Your task to perform on an android device: turn off javascript in the chrome app Image 0: 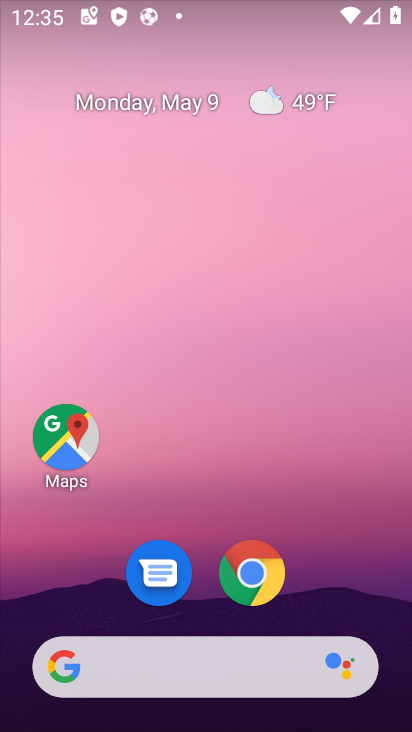
Step 0: click (253, 575)
Your task to perform on an android device: turn off javascript in the chrome app Image 1: 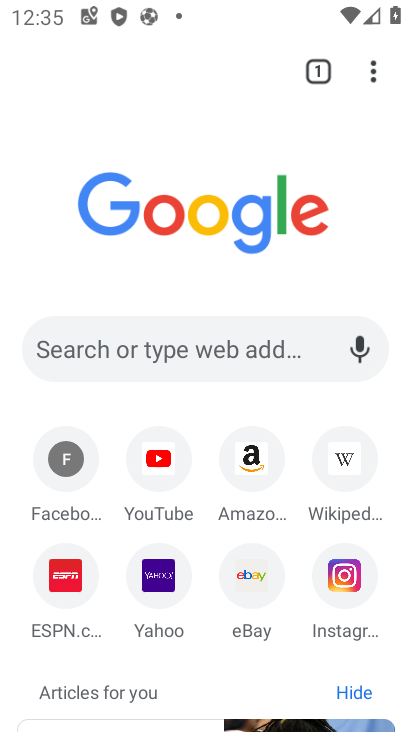
Step 1: click (377, 78)
Your task to perform on an android device: turn off javascript in the chrome app Image 2: 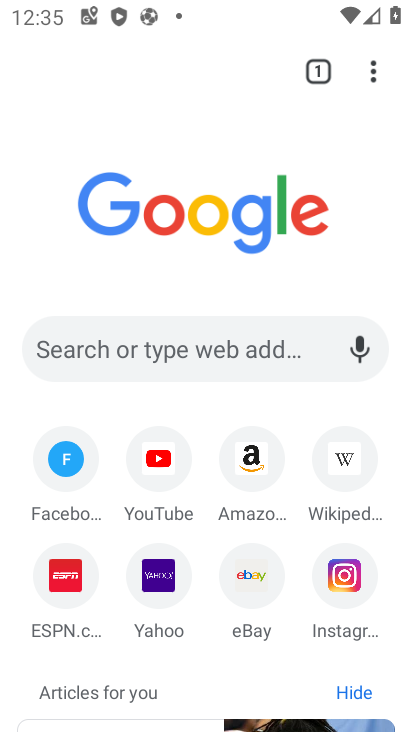
Step 2: click (368, 60)
Your task to perform on an android device: turn off javascript in the chrome app Image 3: 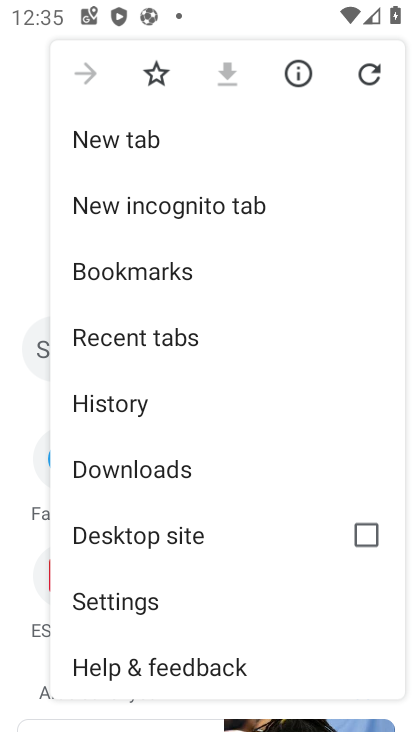
Step 3: click (366, 58)
Your task to perform on an android device: turn off javascript in the chrome app Image 4: 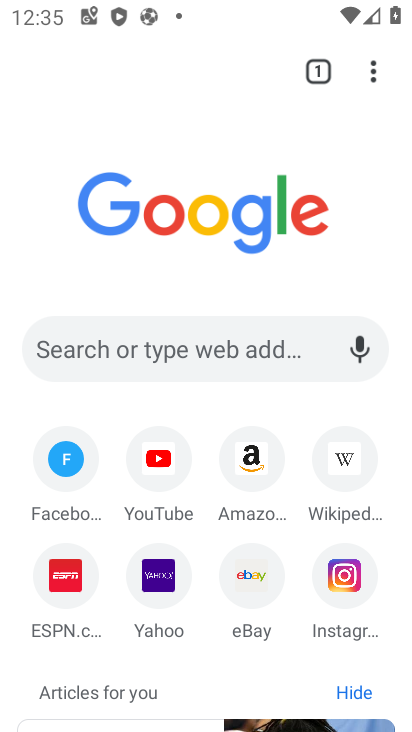
Step 4: click (371, 68)
Your task to perform on an android device: turn off javascript in the chrome app Image 5: 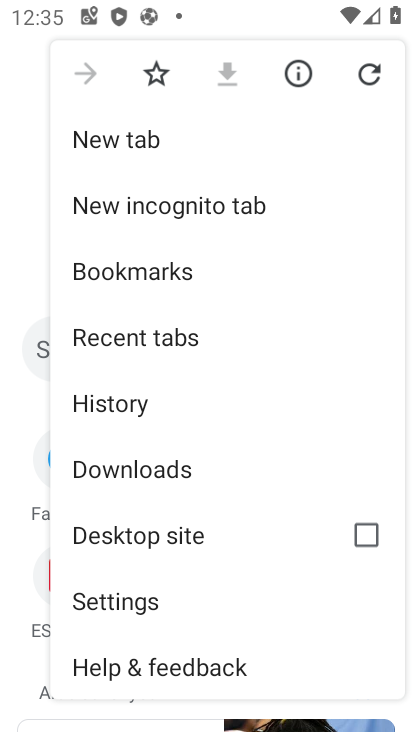
Step 5: click (157, 608)
Your task to perform on an android device: turn off javascript in the chrome app Image 6: 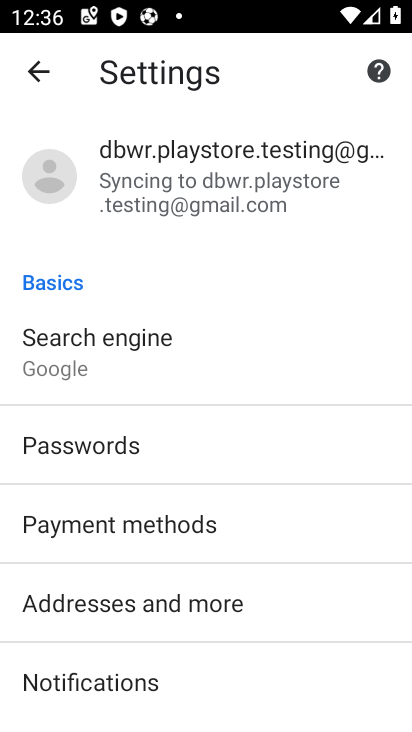
Step 6: drag from (206, 642) to (77, 56)
Your task to perform on an android device: turn off javascript in the chrome app Image 7: 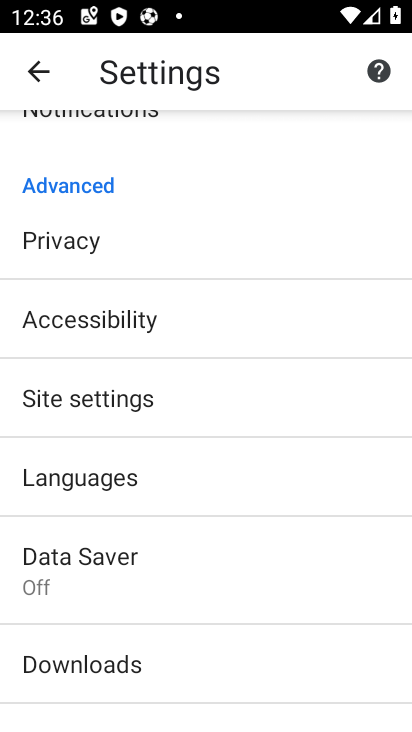
Step 7: click (93, 406)
Your task to perform on an android device: turn off javascript in the chrome app Image 8: 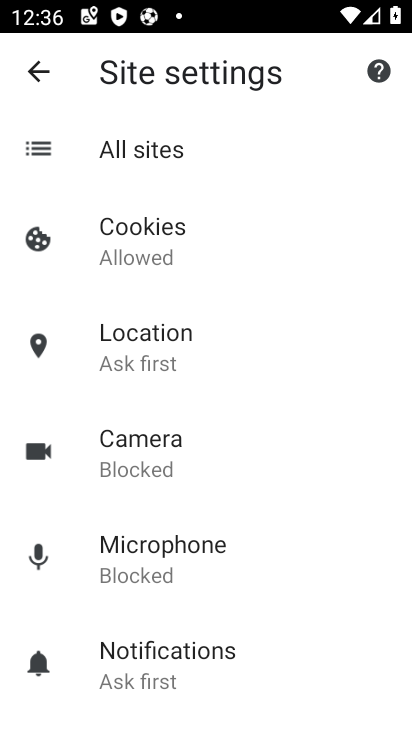
Step 8: drag from (207, 623) to (137, 31)
Your task to perform on an android device: turn off javascript in the chrome app Image 9: 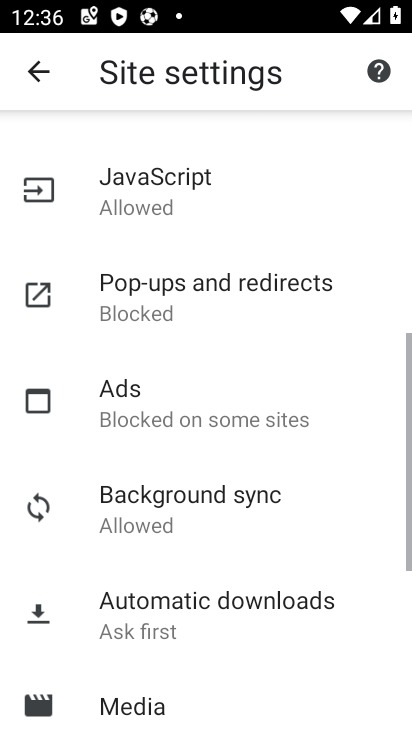
Step 9: click (160, 199)
Your task to perform on an android device: turn off javascript in the chrome app Image 10: 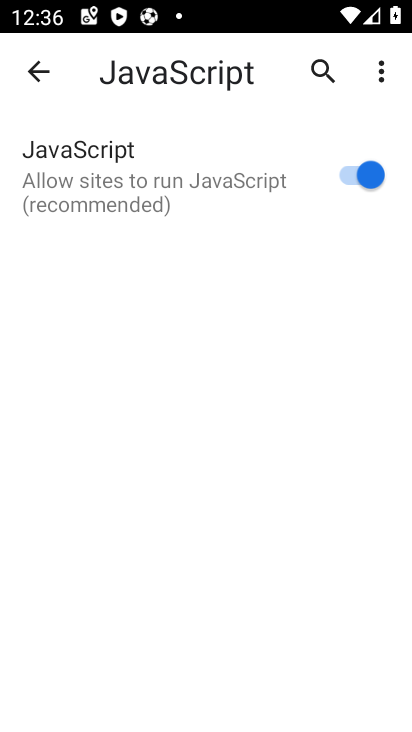
Step 10: click (376, 185)
Your task to perform on an android device: turn off javascript in the chrome app Image 11: 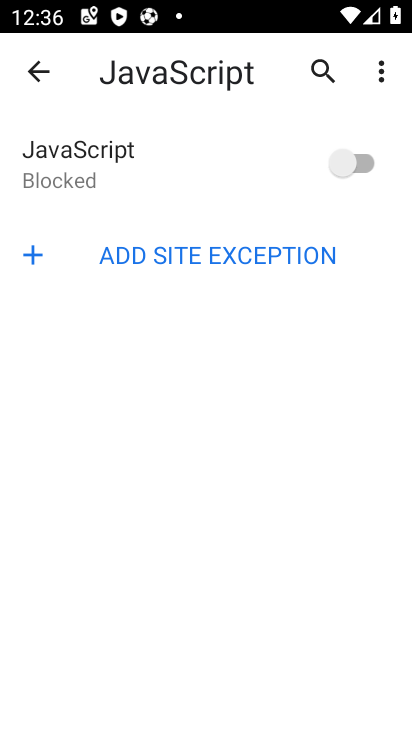
Step 11: task complete